Your task to perform on an android device: install app "Contacts" Image 0: 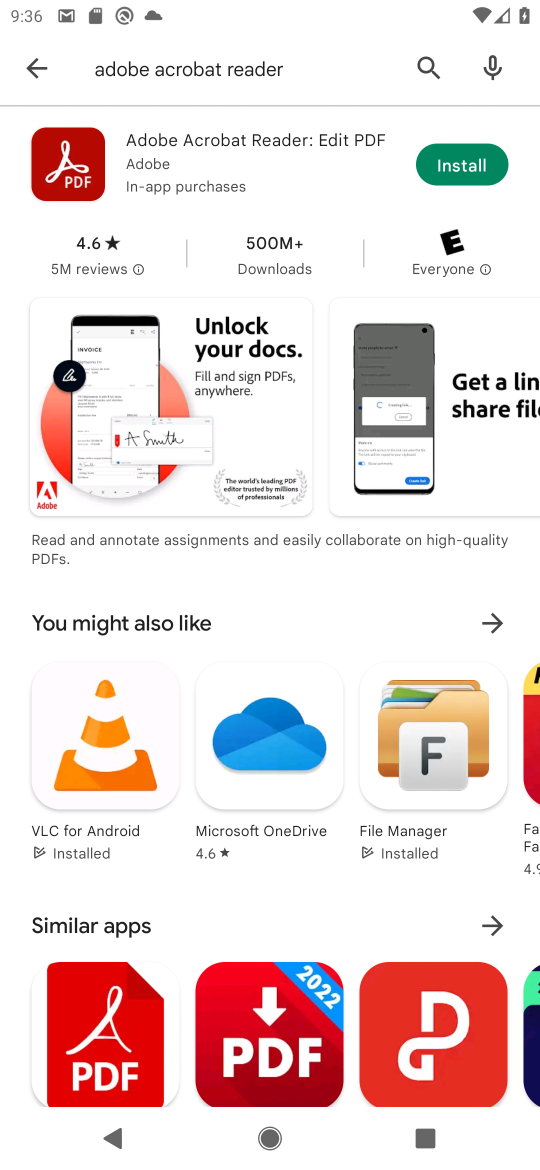
Step 0: press home button
Your task to perform on an android device: install app "Contacts" Image 1: 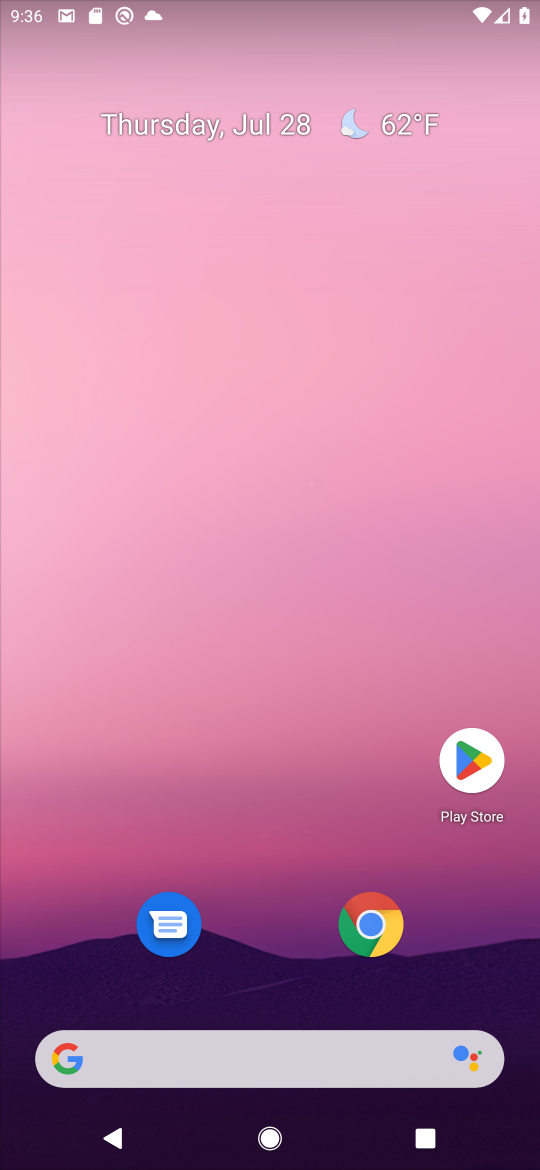
Step 1: click (463, 767)
Your task to perform on an android device: install app "Contacts" Image 2: 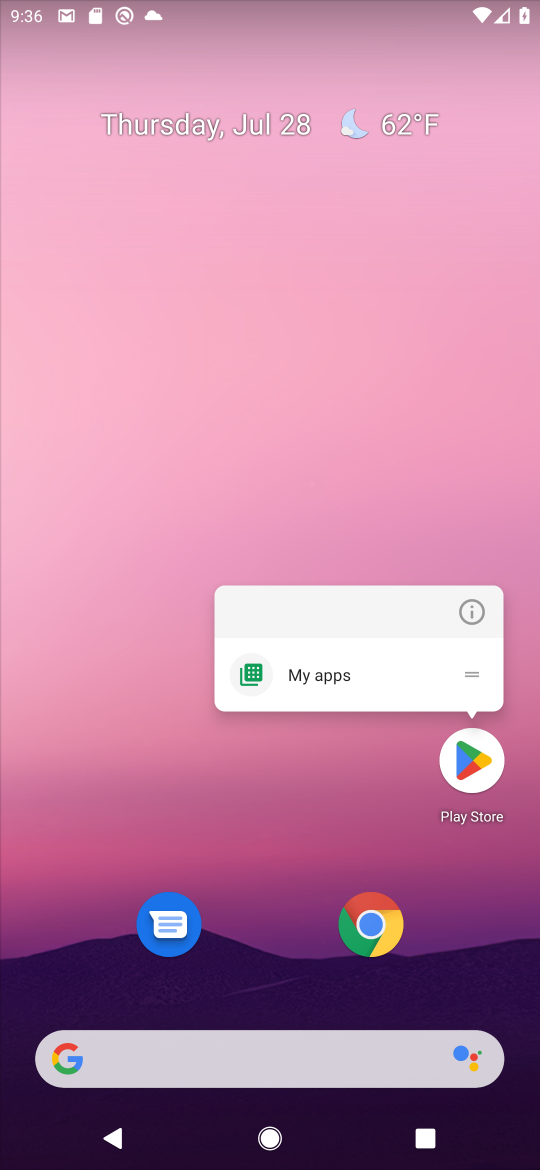
Step 2: click (466, 768)
Your task to perform on an android device: install app "Contacts" Image 3: 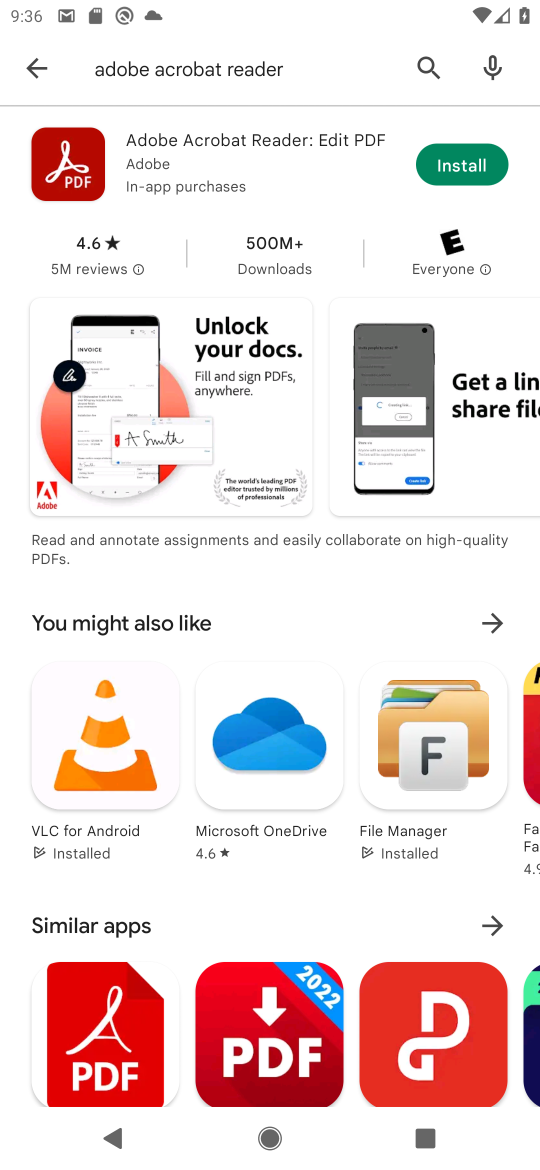
Step 3: click (426, 60)
Your task to perform on an android device: install app "Contacts" Image 4: 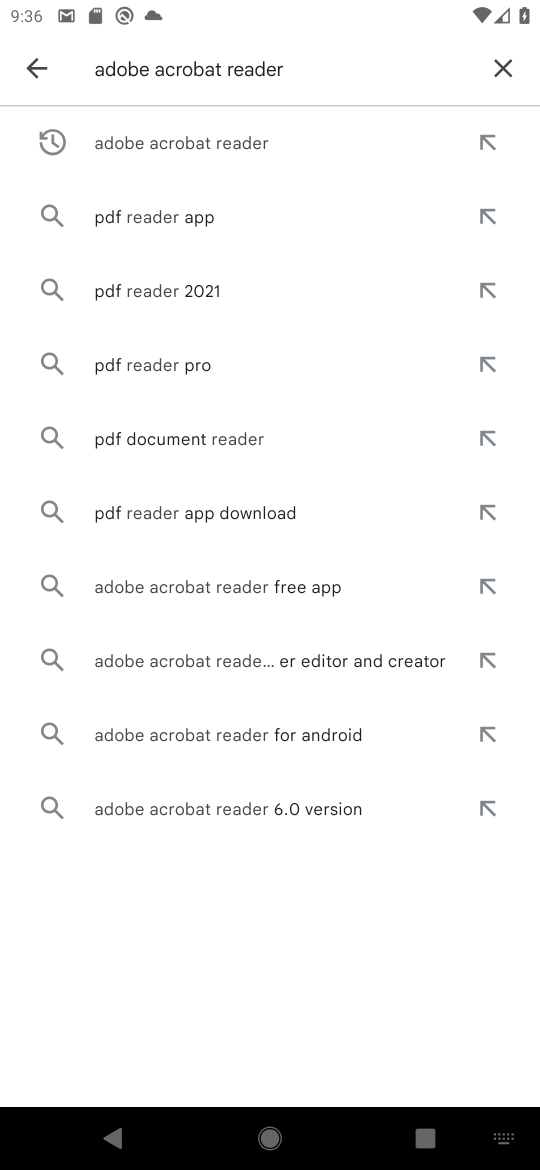
Step 4: click (513, 66)
Your task to perform on an android device: install app "Contacts" Image 5: 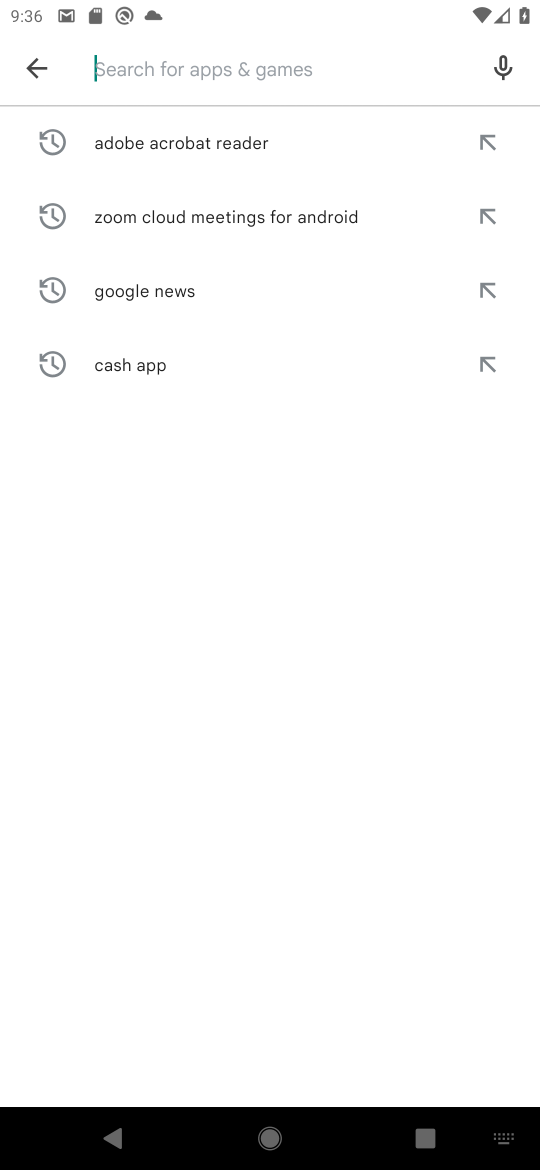
Step 5: click (234, 65)
Your task to perform on an android device: install app "Contacts" Image 6: 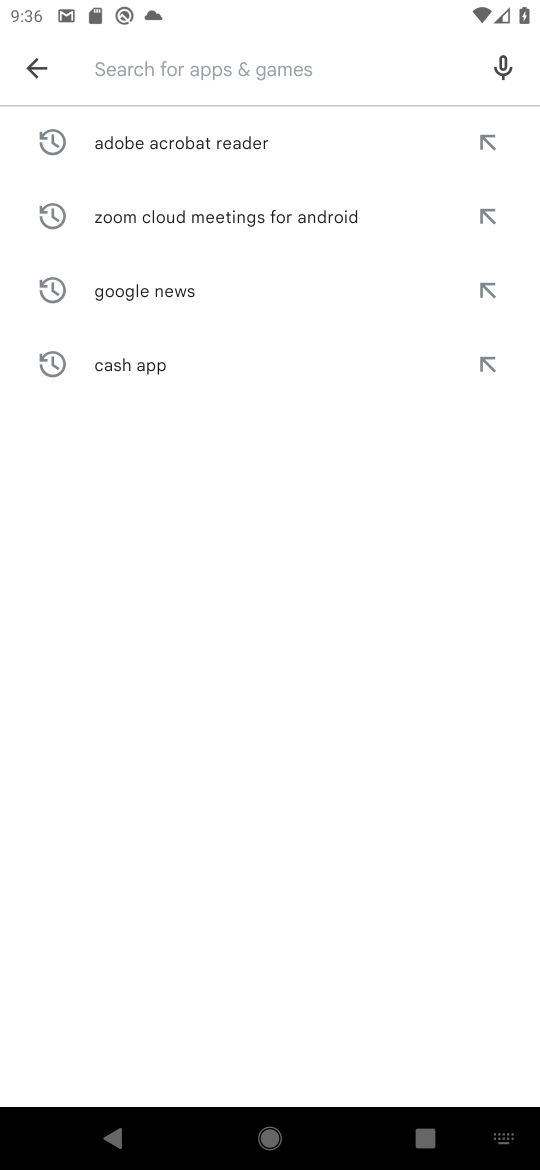
Step 6: type "Contacts"
Your task to perform on an android device: install app "Contacts" Image 7: 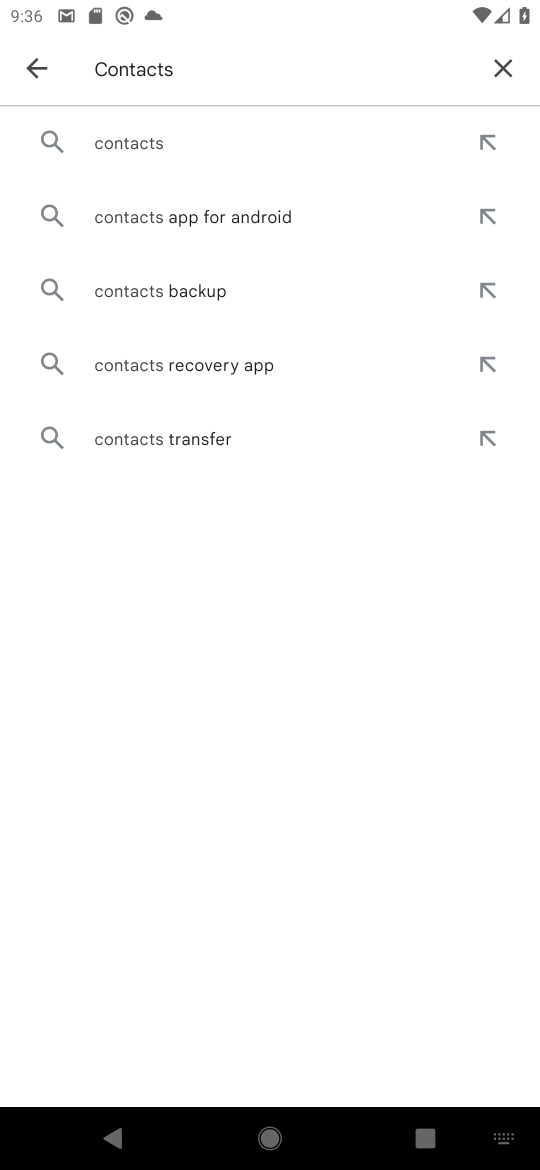
Step 7: click (128, 125)
Your task to perform on an android device: install app "Contacts" Image 8: 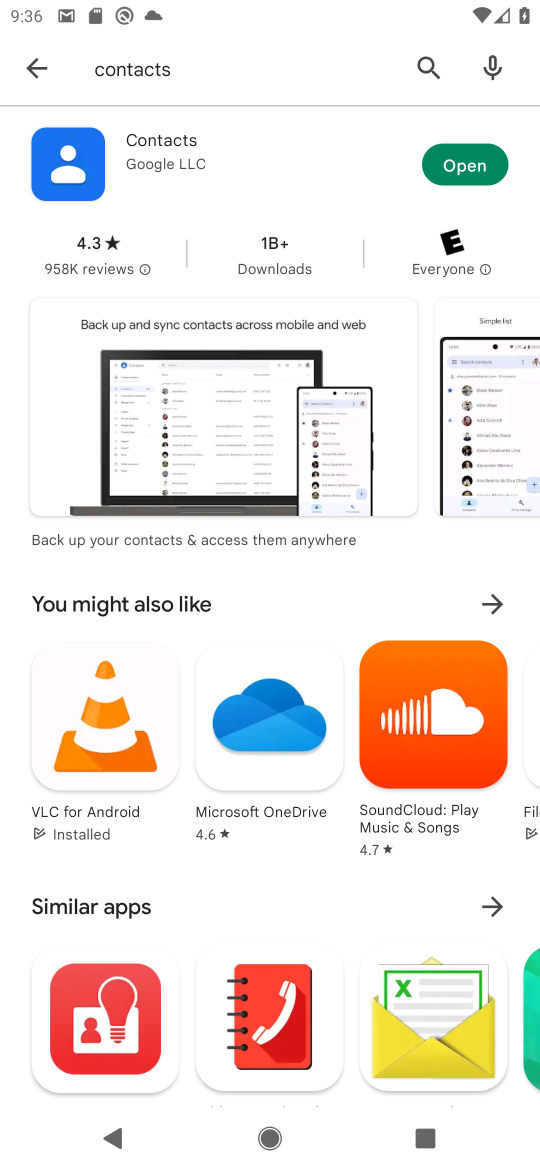
Step 8: task complete